Your task to perform on an android device: Search for a new bronzer Image 0: 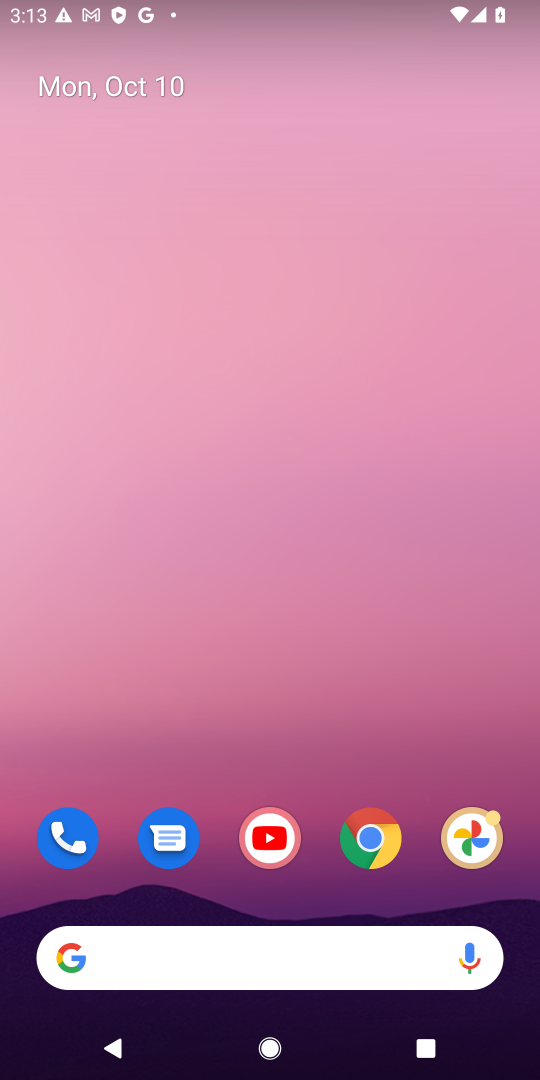
Step 0: click (357, 846)
Your task to perform on an android device: Search for a new bronzer Image 1: 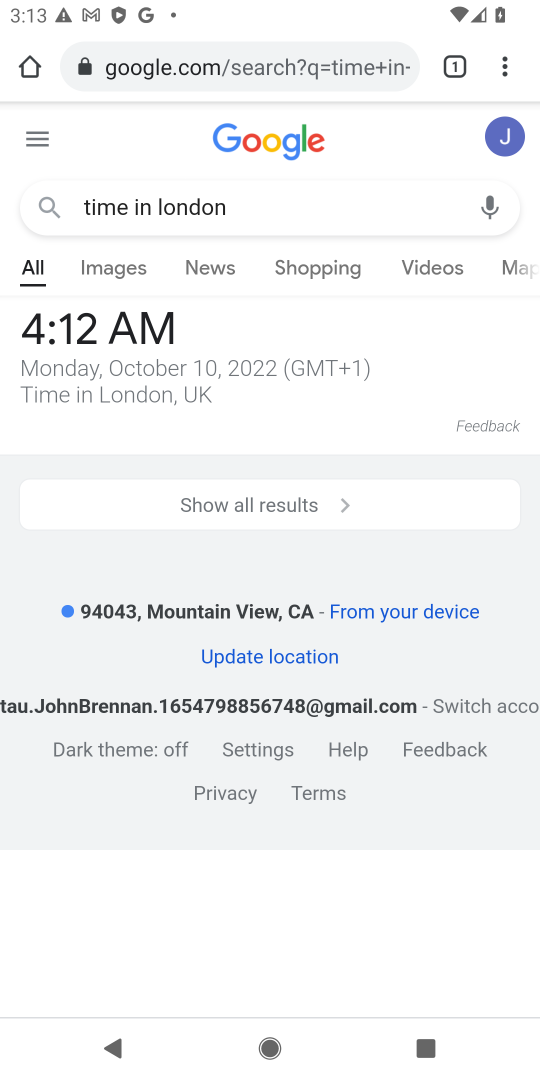
Step 1: click (282, 65)
Your task to perform on an android device: Search for a new bronzer Image 2: 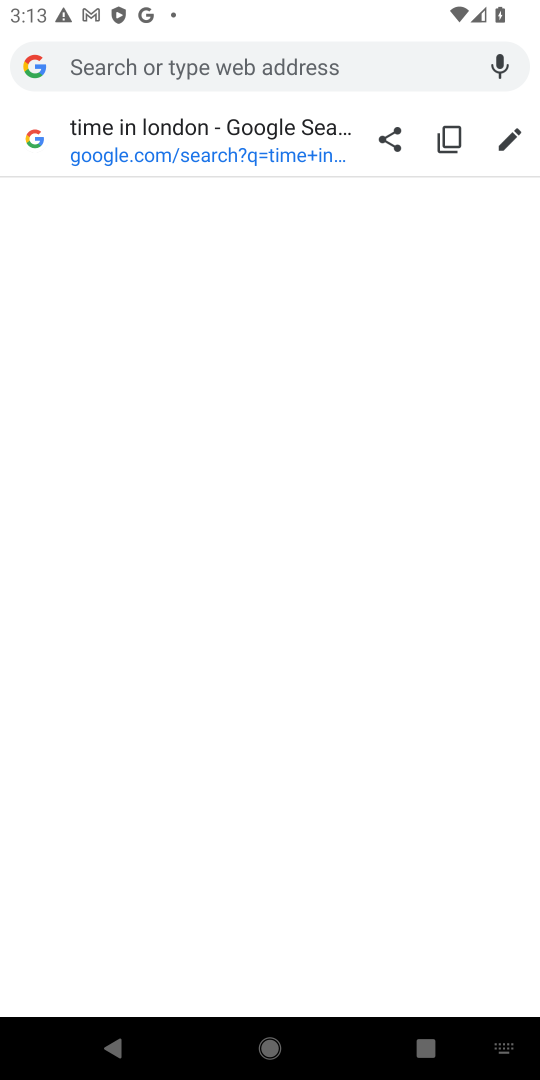
Step 2: type "Search for a new bronzer"
Your task to perform on an android device: Search for a new bronzer Image 3: 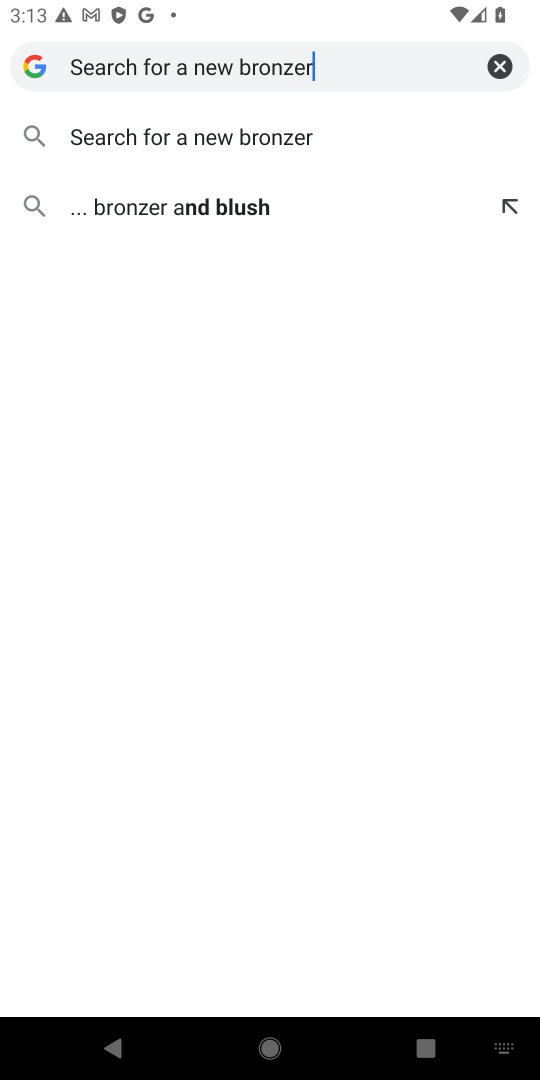
Step 3: click (298, 67)
Your task to perform on an android device: Search for a new bronzer Image 4: 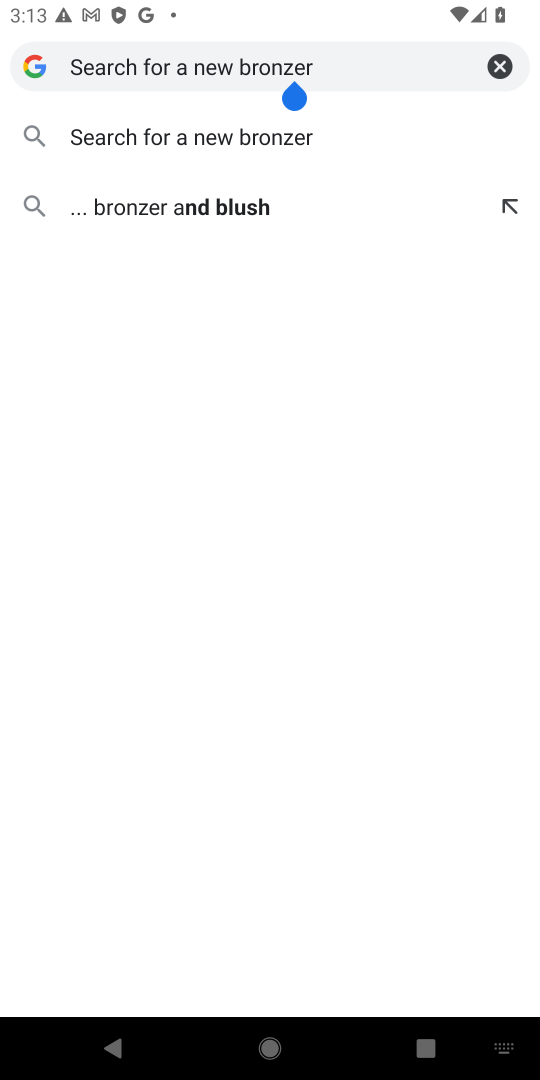
Step 4: click (248, 129)
Your task to perform on an android device: Search for a new bronzer Image 5: 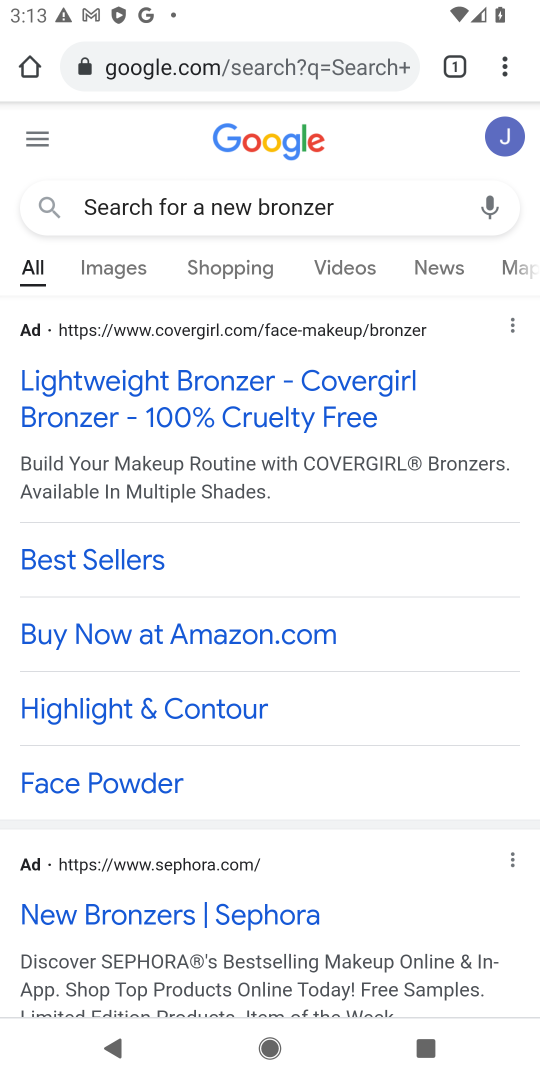
Step 5: click (299, 391)
Your task to perform on an android device: Search for a new bronzer Image 6: 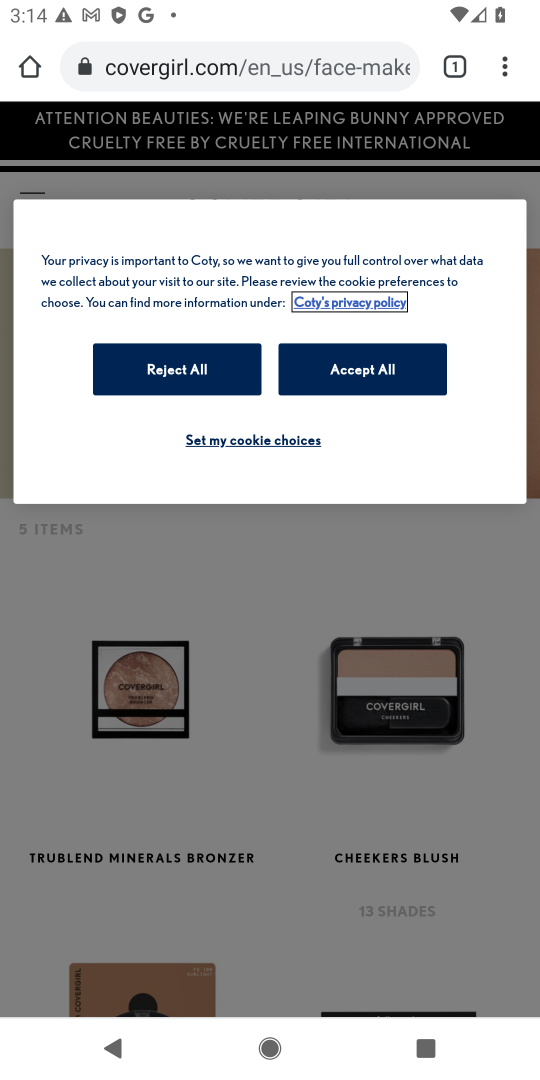
Step 6: task complete